Your task to perform on an android device: See recent photos Image 0: 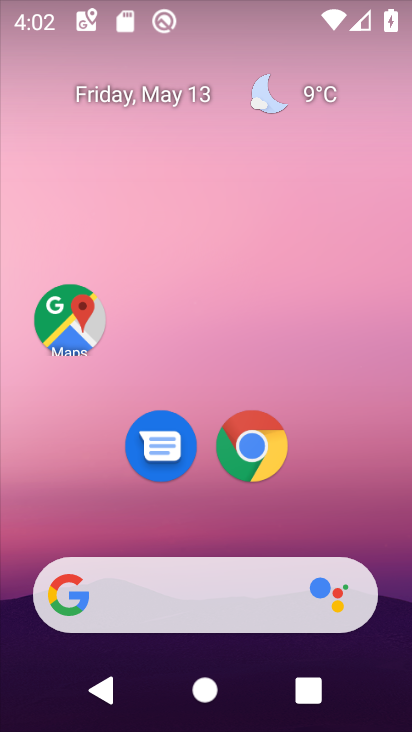
Step 0: drag from (224, 525) to (243, 46)
Your task to perform on an android device: See recent photos Image 1: 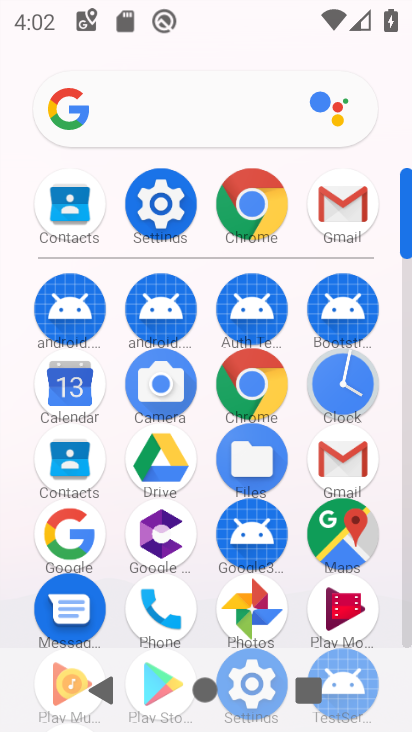
Step 1: click (258, 596)
Your task to perform on an android device: See recent photos Image 2: 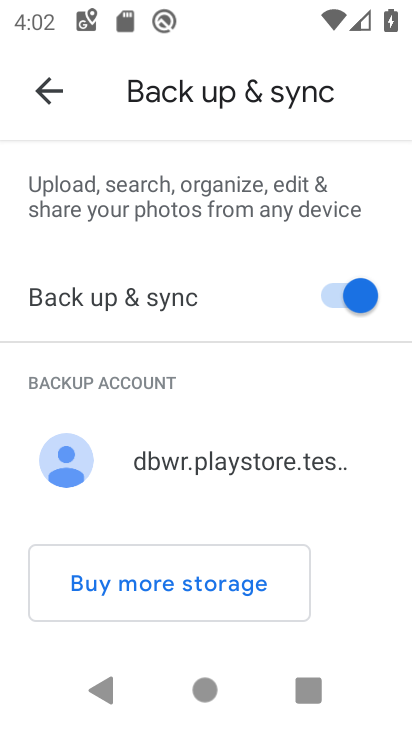
Step 2: click (43, 99)
Your task to perform on an android device: See recent photos Image 3: 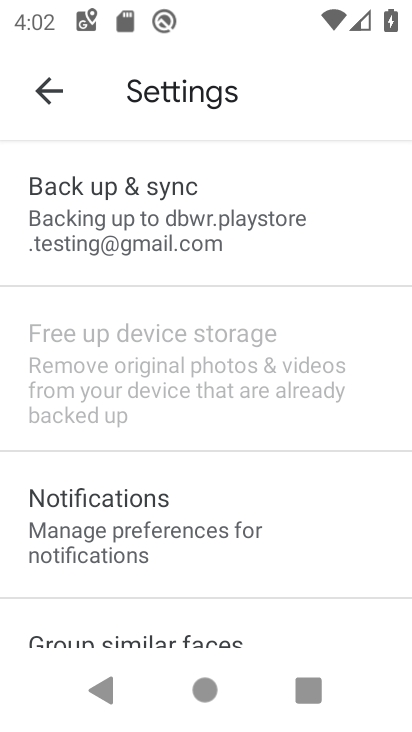
Step 3: click (29, 93)
Your task to perform on an android device: See recent photos Image 4: 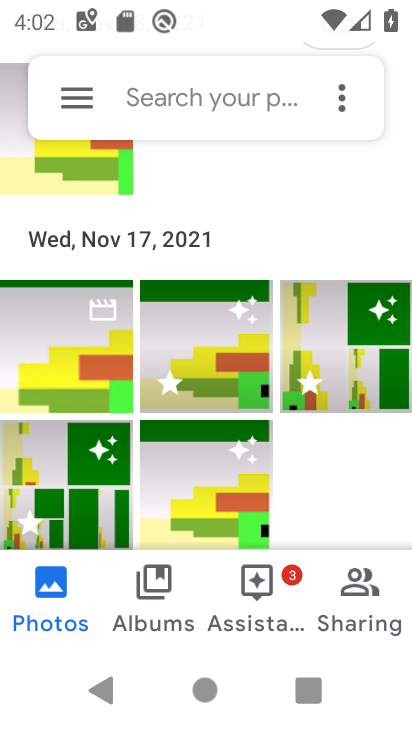
Step 4: task complete